Your task to perform on an android device: Go to battery settings Image 0: 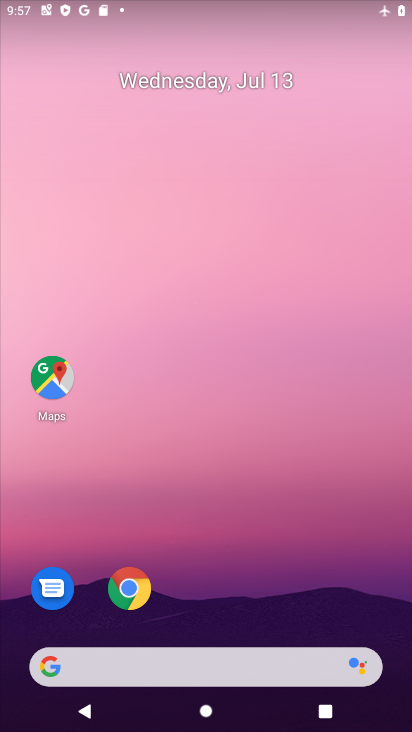
Step 0: drag from (231, 563) to (230, 194)
Your task to perform on an android device: Go to battery settings Image 1: 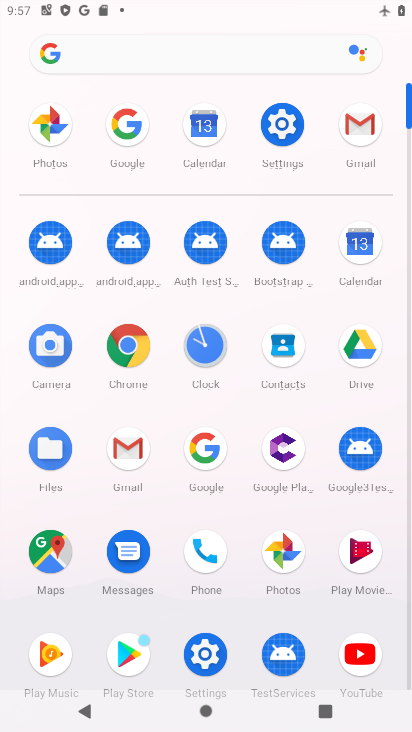
Step 1: click (274, 127)
Your task to perform on an android device: Go to battery settings Image 2: 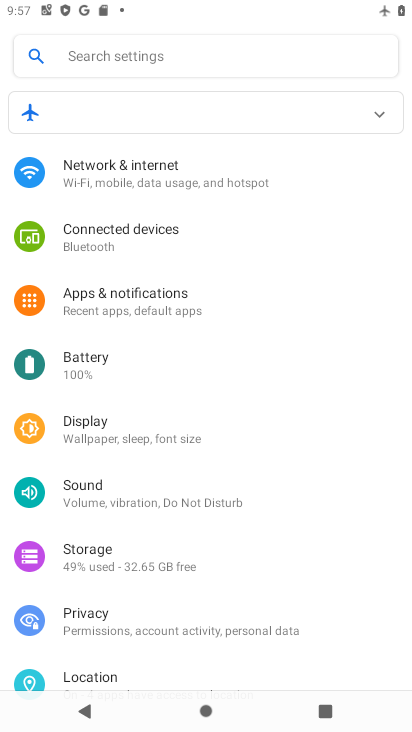
Step 2: click (116, 365)
Your task to perform on an android device: Go to battery settings Image 3: 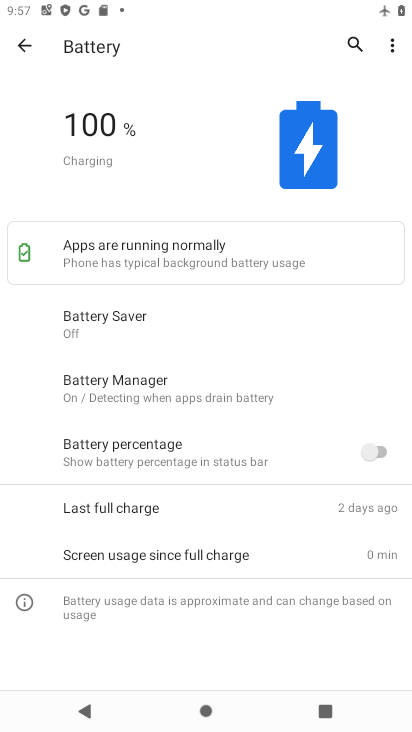
Step 3: task complete